Your task to perform on an android device: turn notification dots on Image 0: 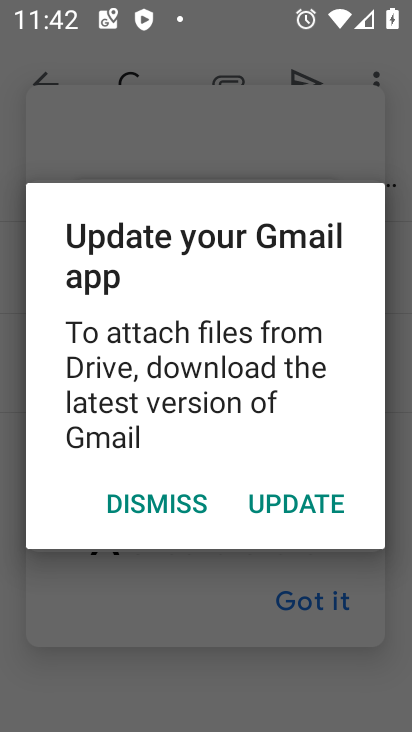
Step 0: press home button
Your task to perform on an android device: turn notification dots on Image 1: 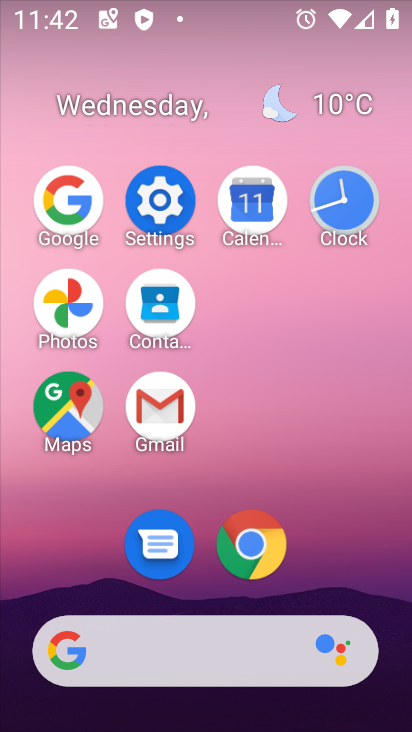
Step 1: click (158, 204)
Your task to perform on an android device: turn notification dots on Image 2: 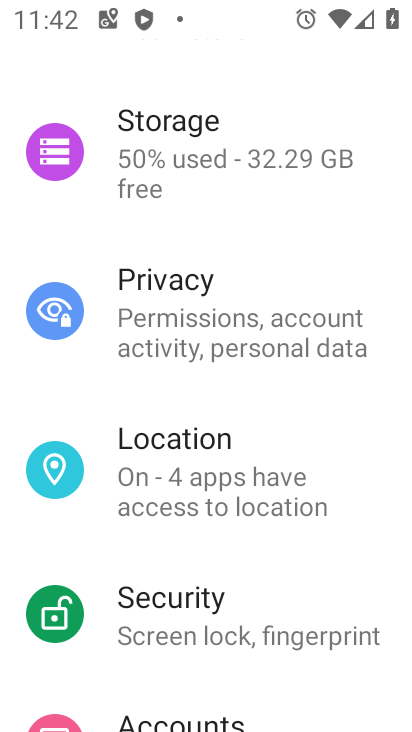
Step 2: drag from (244, 227) to (247, 641)
Your task to perform on an android device: turn notification dots on Image 3: 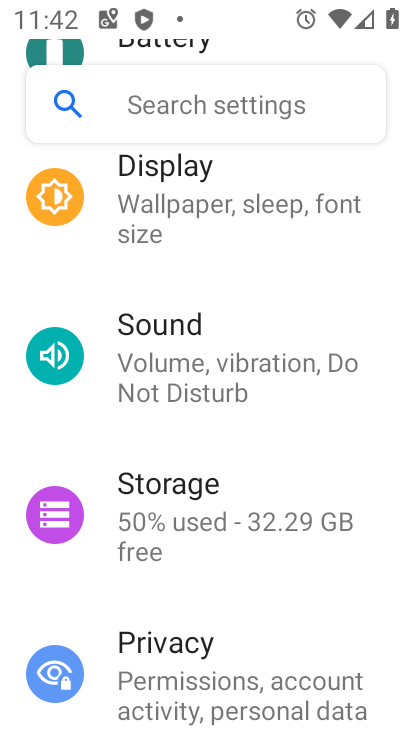
Step 3: drag from (279, 247) to (282, 579)
Your task to perform on an android device: turn notification dots on Image 4: 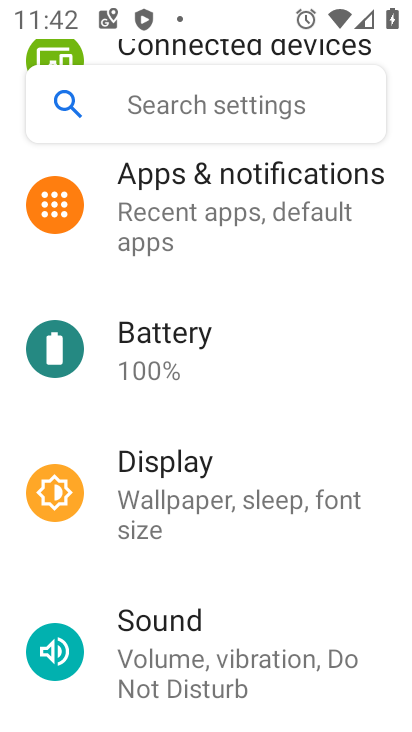
Step 4: click (269, 200)
Your task to perform on an android device: turn notification dots on Image 5: 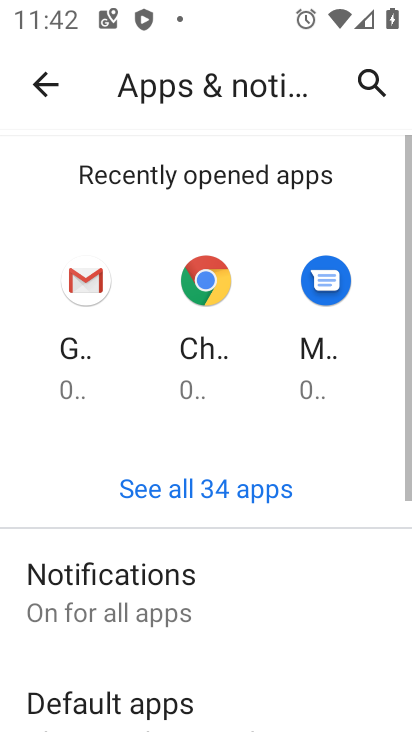
Step 5: click (239, 609)
Your task to perform on an android device: turn notification dots on Image 6: 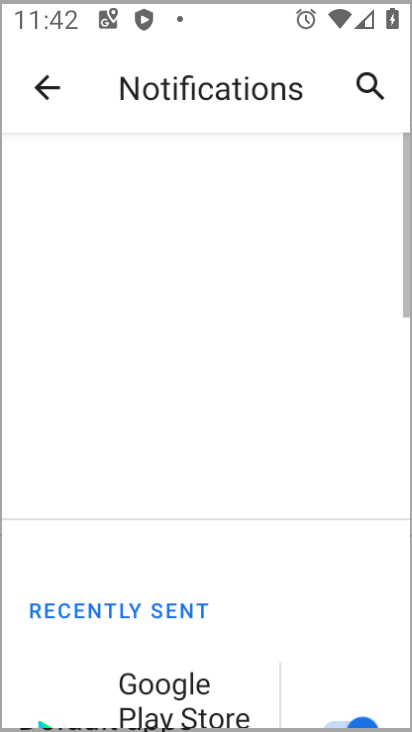
Step 6: drag from (274, 609) to (370, 75)
Your task to perform on an android device: turn notification dots on Image 7: 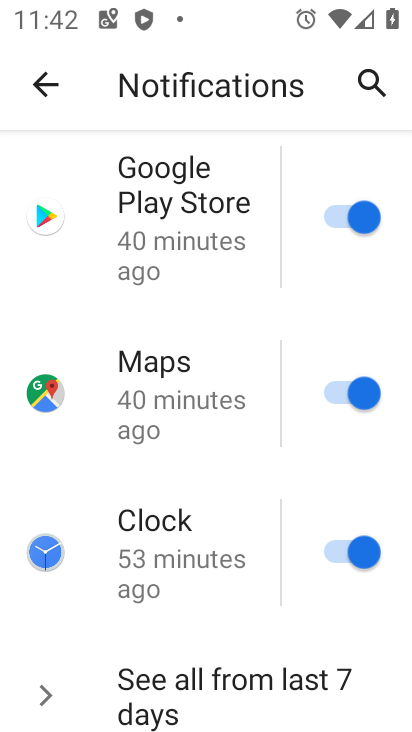
Step 7: drag from (250, 602) to (251, 138)
Your task to perform on an android device: turn notification dots on Image 8: 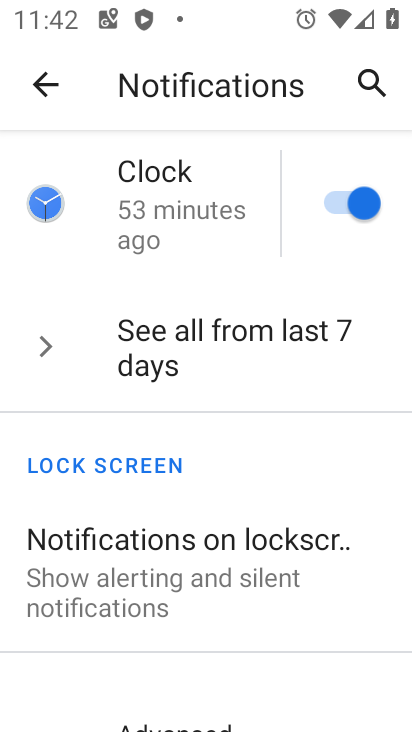
Step 8: drag from (187, 650) to (230, 236)
Your task to perform on an android device: turn notification dots on Image 9: 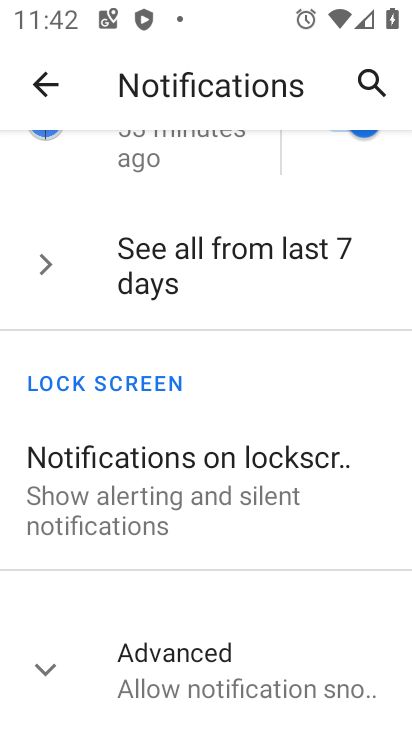
Step 9: click (207, 638)
Your task to perform on an android device: turn notification dots on Image 10: 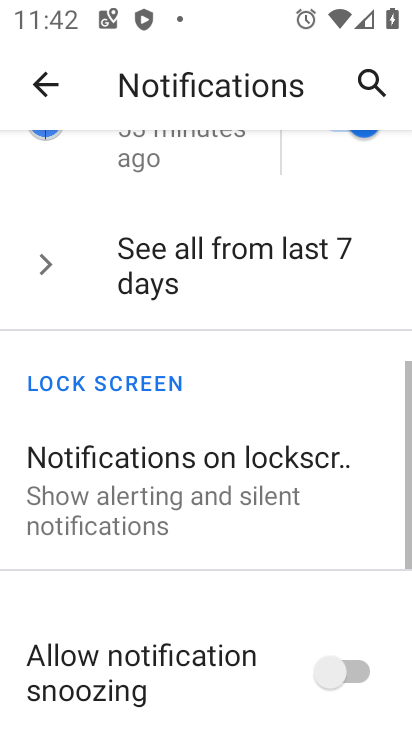
Step 10: task complete